Your task to perform on an android device: delete location history Image 0: 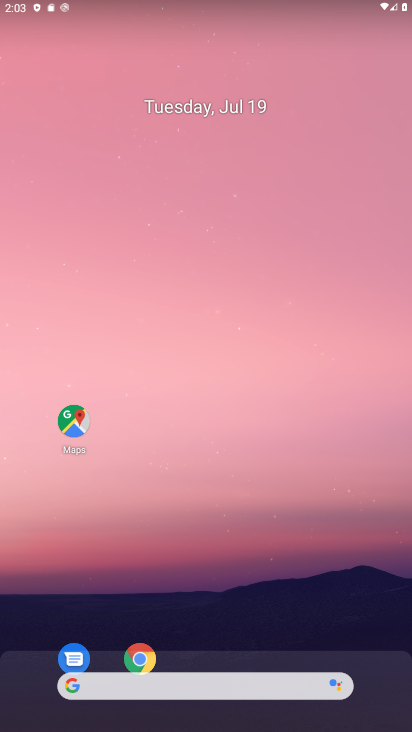
Step 0: drag from (265, 591) to (269, 78)
Your task to perform on an android device: delete location history Image 1: 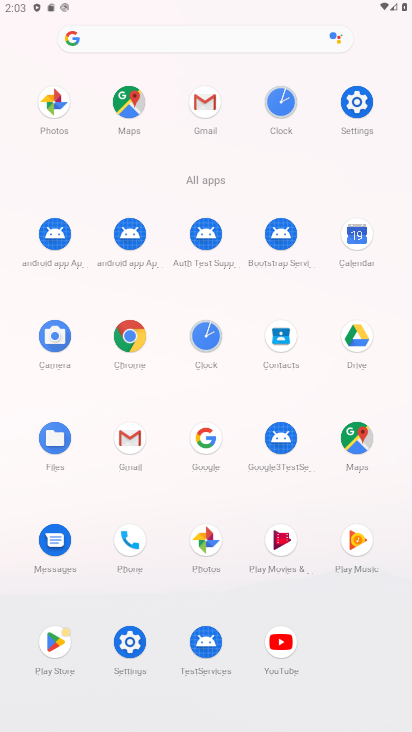
Step 1: click (363, 445)
Your task to perform on an android device: delete location history Image 2: 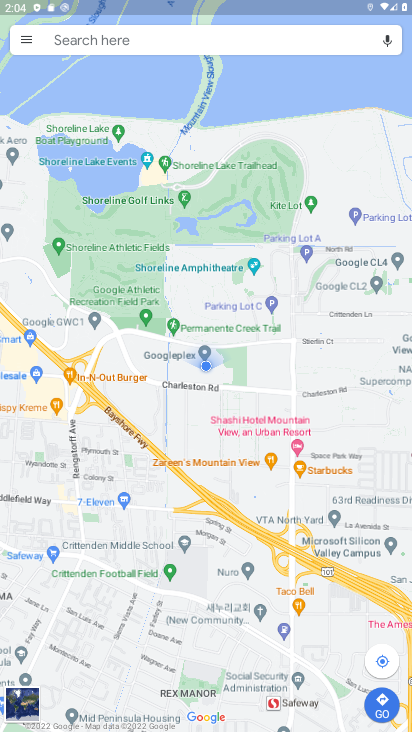
Step 2: click (21, 46)
Your task to perform on an android device: delete location history Image 3: 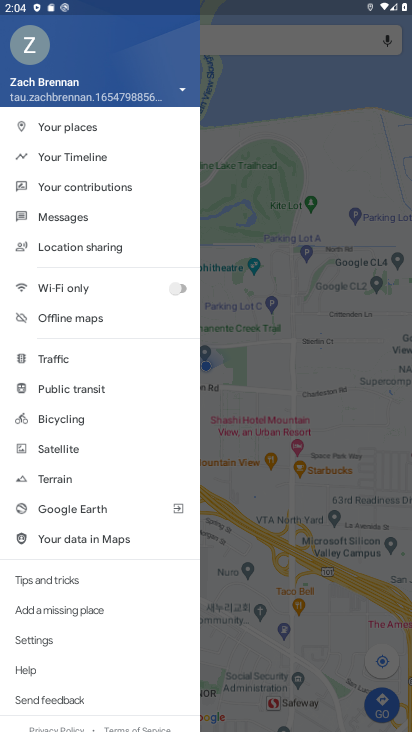
Step 3: click (51, 644)
Your task to perform on an android device: delete location history Image 4: 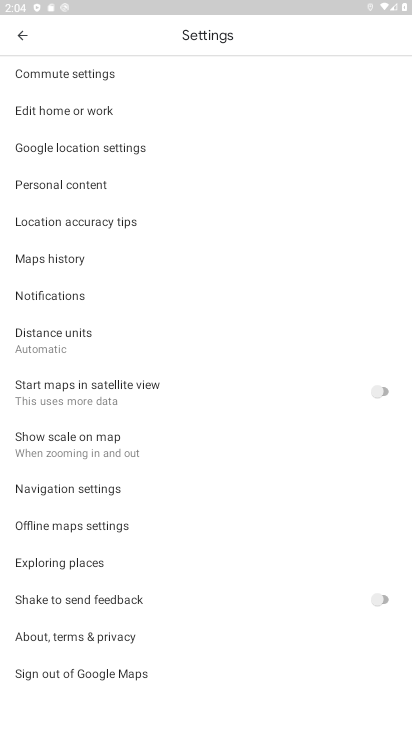
Step 4: click (70, 260)
Your task to perform on an android device: delete location history Image 5: 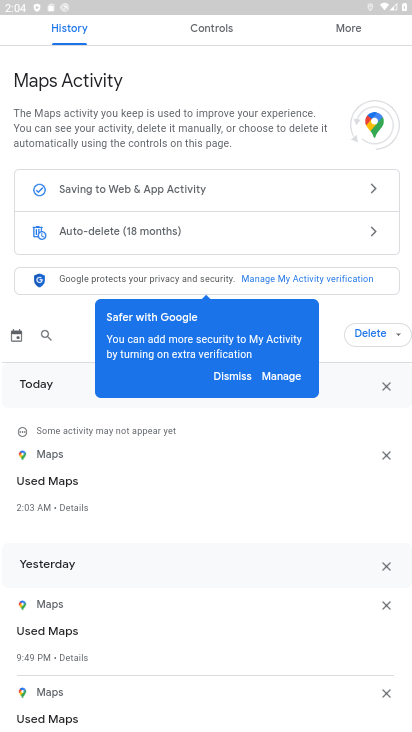
Step 5: click (384, 334)
Your task to perform on an android device: delete location history Image 6: 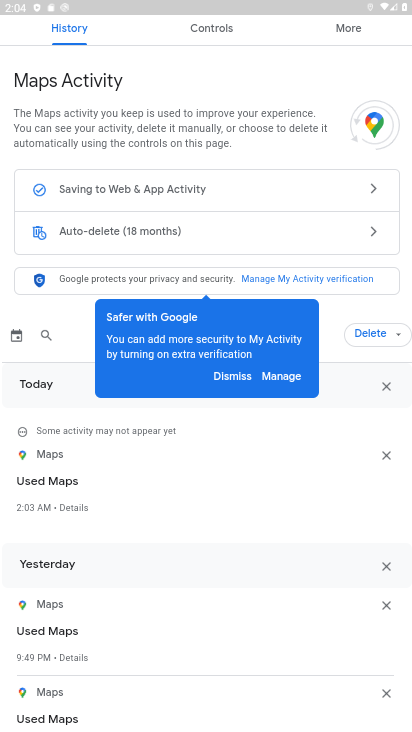
Step 6: click (384, 334)
Your task to perform on an android device: delete location history Image 7: 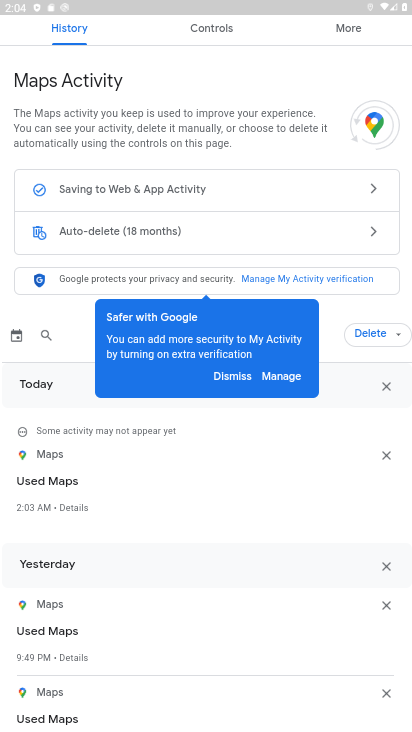
Step 7: click (213, 376)
Your task to perform on an android device: delete location history Image 8: 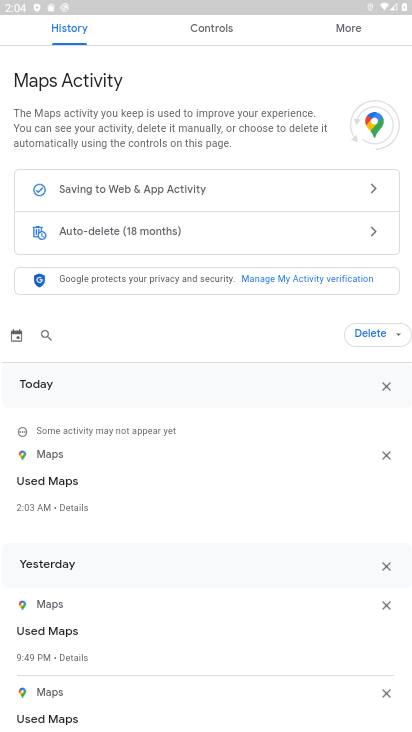
Step 8: click (370, 333)
Your task to perform on an android device: delete location history Image 9: 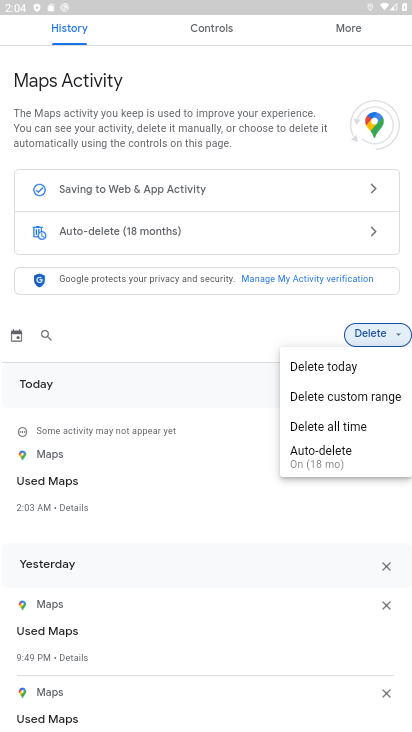
Step 9: click (321, 435)
Your task to perform on an android device: delete location history Image 10: 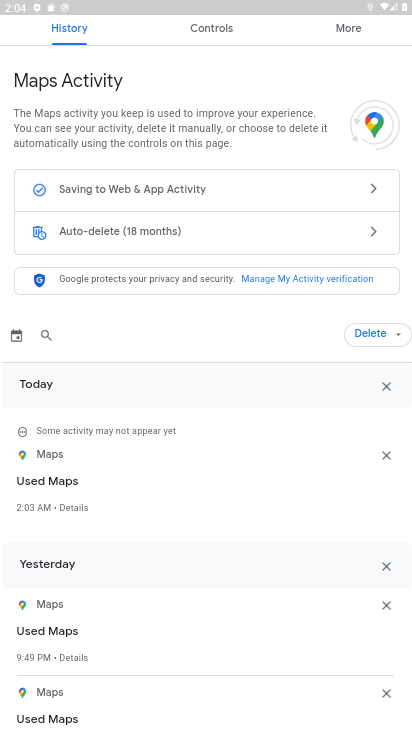
Step 10: click (374, 334)
Your task to perform on an android device: delete location history Image 11: 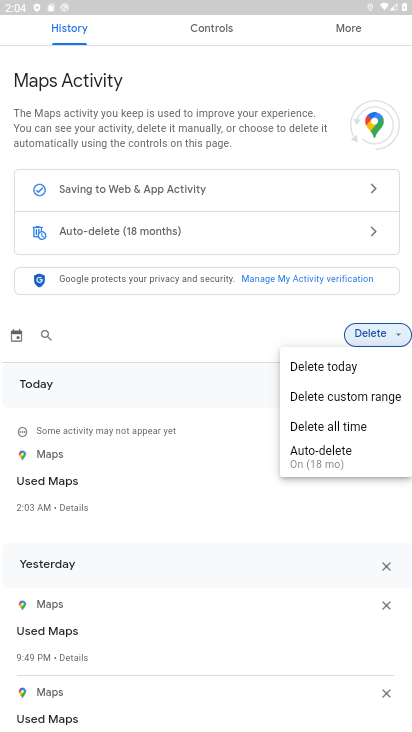
Step 11: click (330, 426)
Your task to perform on an android device: delete location history Image 12: 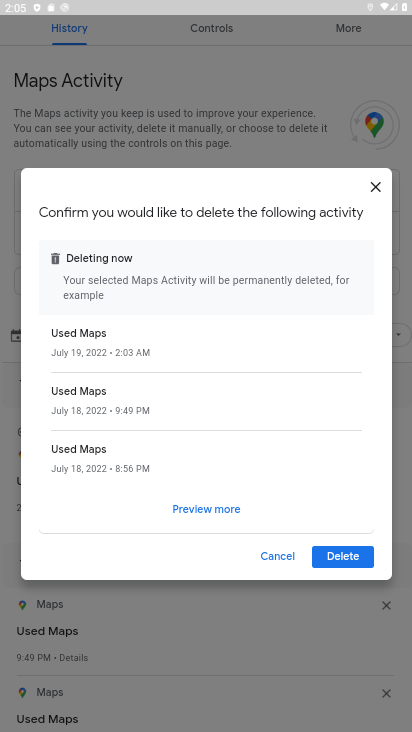
Step 12: click (365, 560)
Your task to perform on an android device: delete location history Image 13: 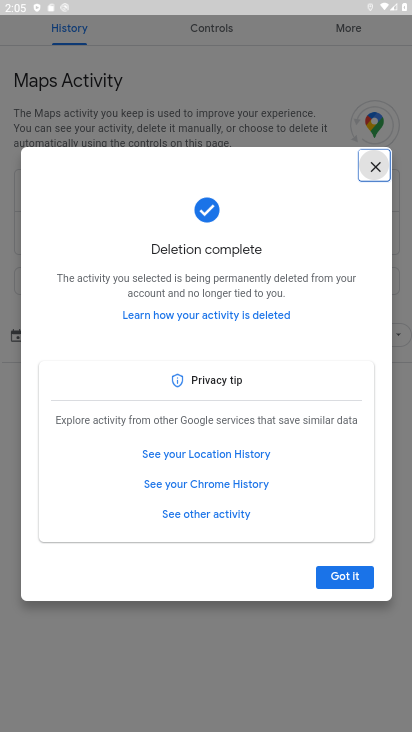
Step 13: task complete